Your task to perform on an android device: star an email in the gmail app Image 0: 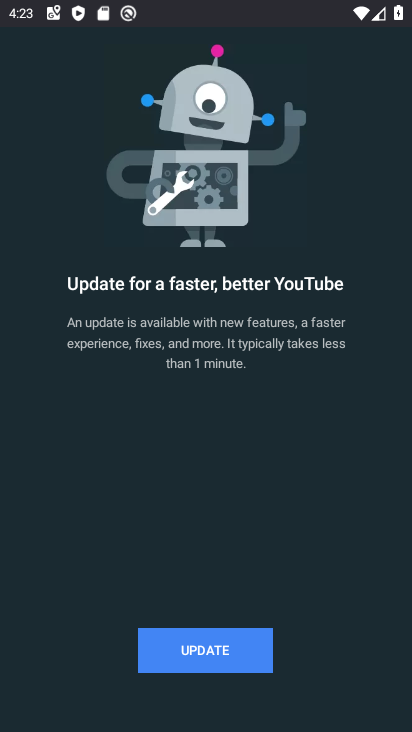
Step 0: press home button
Your task to perform on an android device: star an email in the gmail app Image 1: 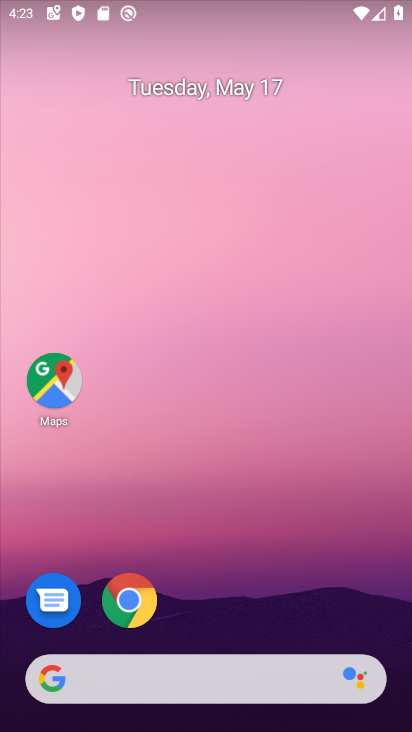
Step 1: drag from (259, 548) to (323, 2)
Your task to perform on an android device: star an email in the gmail app Image 2: 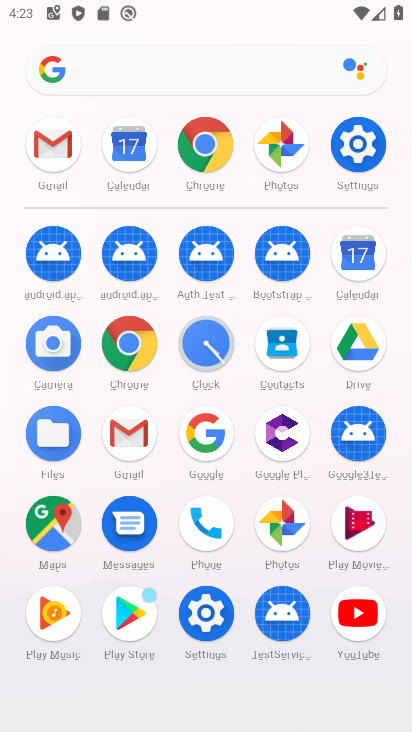
Step 2: click (136, 449)
Your task to perform on an android device: star an email in the gmail app Image 3: 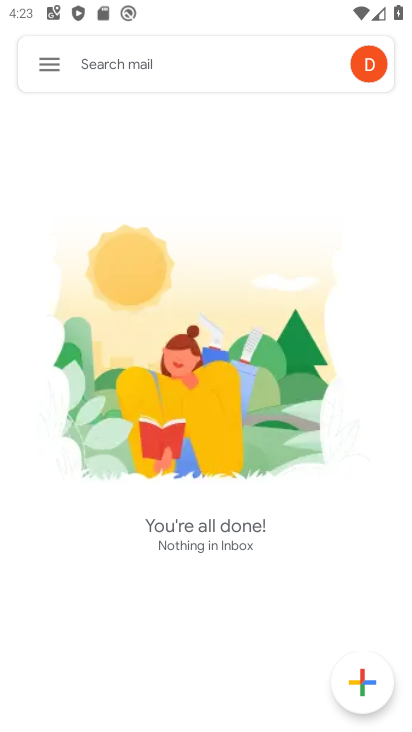
Step 3: click (58, 64)
Your task to perform on an android device: star an email in the gmail app Image 4: 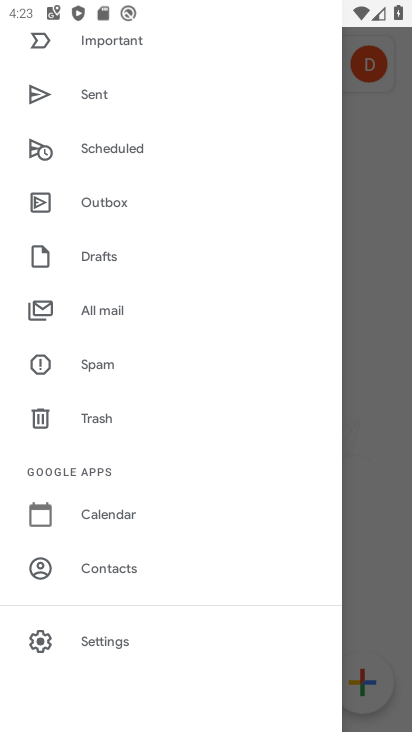
Step 4: click (123, 313)
Your task to perform on an android device: star an email in the gmail app Image 5: 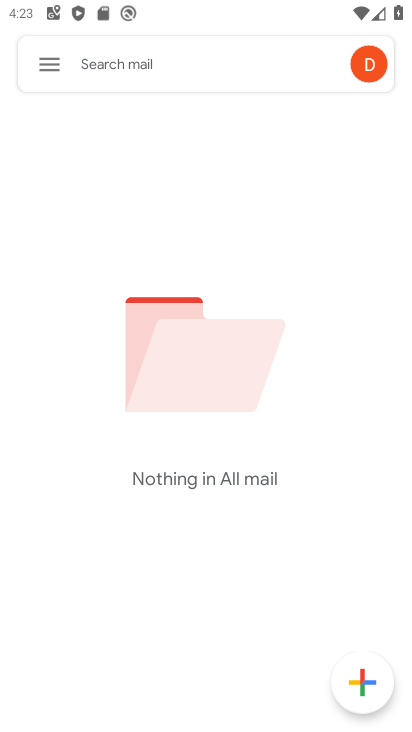
Step 5: task complete